Your task to perform on an android device: Show me popular videos on Youtube Image 0: 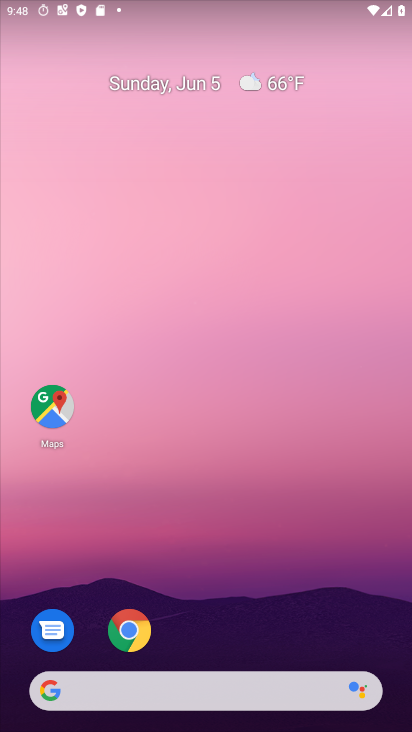
Step 0: drag from (207, 727) to (232, 120)
Your task to perform on an android device: Show me popular videos on Youtube Image 1: 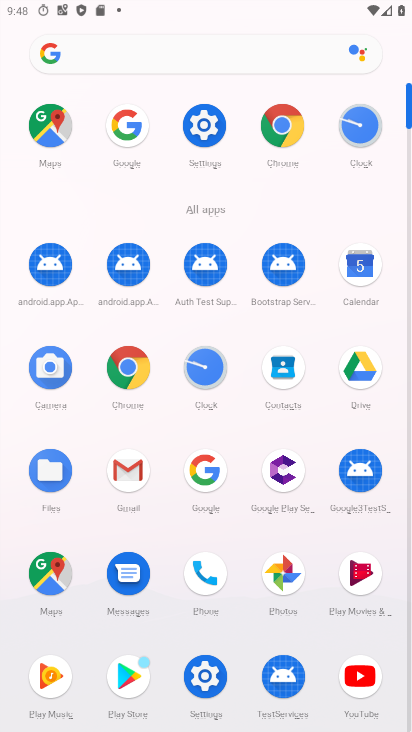
Step 1: click (358, 680)
Your task to perform on an android device: Show me popular videos on Youtube Image 2: 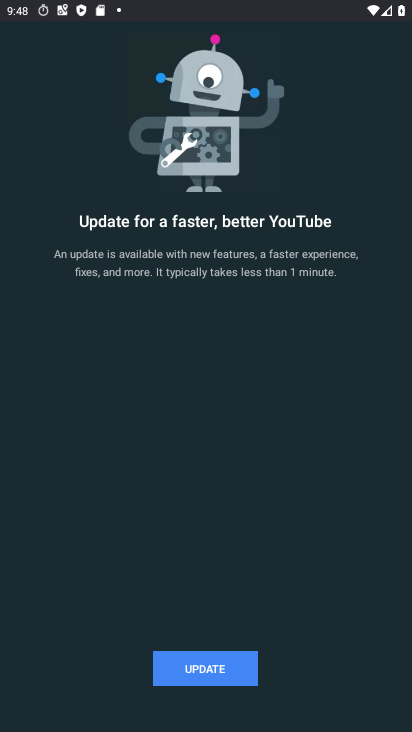
Step 2: task complete